Your task to perform on an android device: turn off airplane mode Image 0: 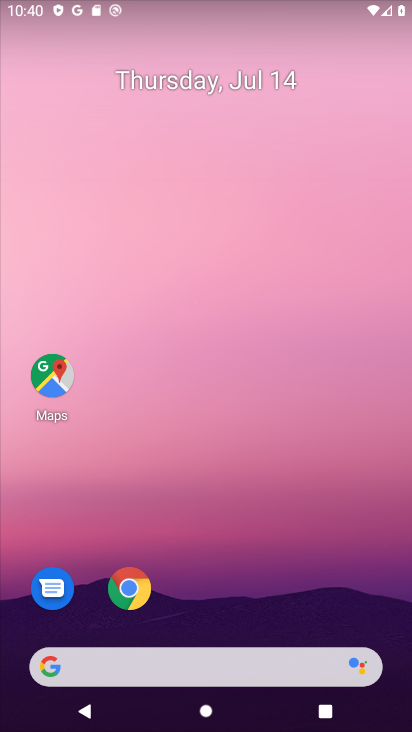
Step 0: press home button
Your task to perform on an android device: turn off airplane mode Image 1: 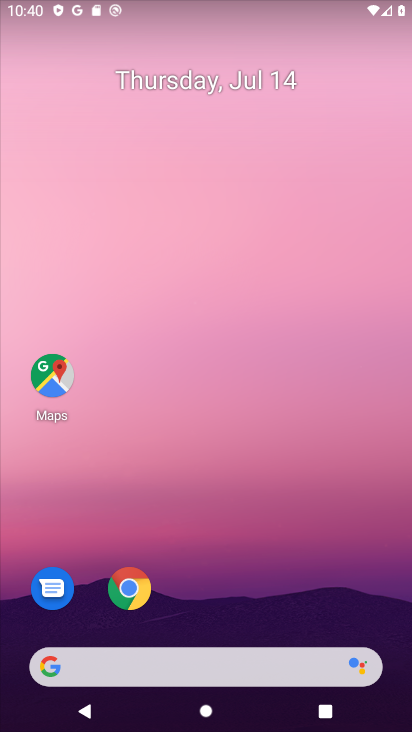
Step 1: drag from (381, 11) to (243, 628)
Your task to perform on an android device: turn off airplane mode Image 2: 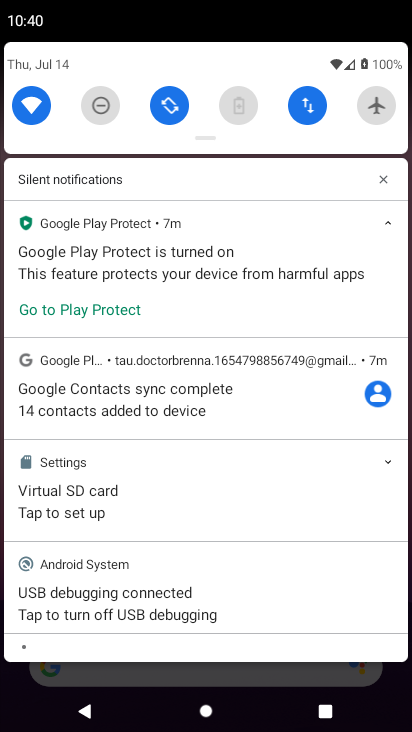
Step 2: click (377, 102)
Your task to perform on an android device: turn off airplane mode Image 3: 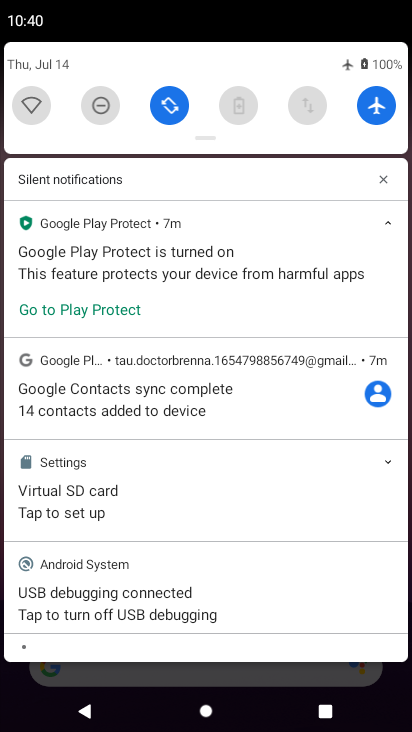
Step 3: task complete